Your task to perform on an android device: Open battery settings Image 0: 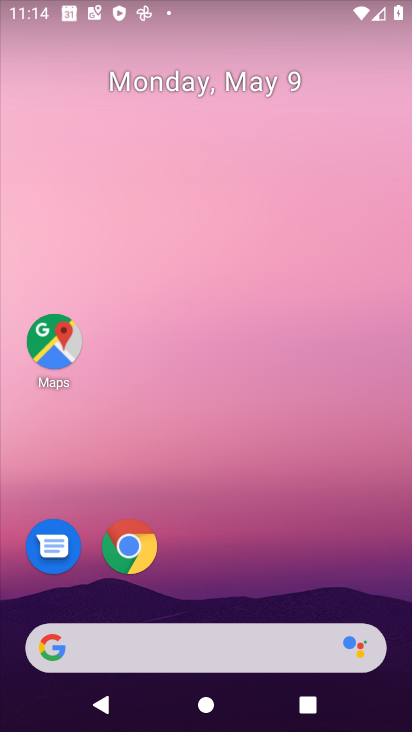
Step 0: drag from (248, 716) to (228, 3)
Your task to perform on an android device: Open battery settings Image 1: 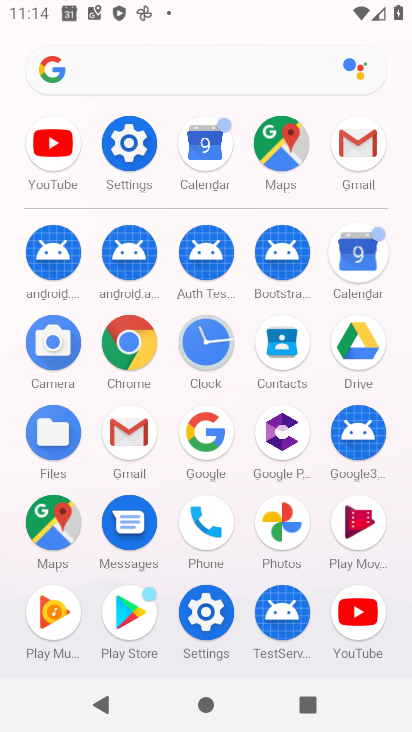
Step 1: click (131, 152)
Your task to perform on an android device: Open battery settings Image 2: 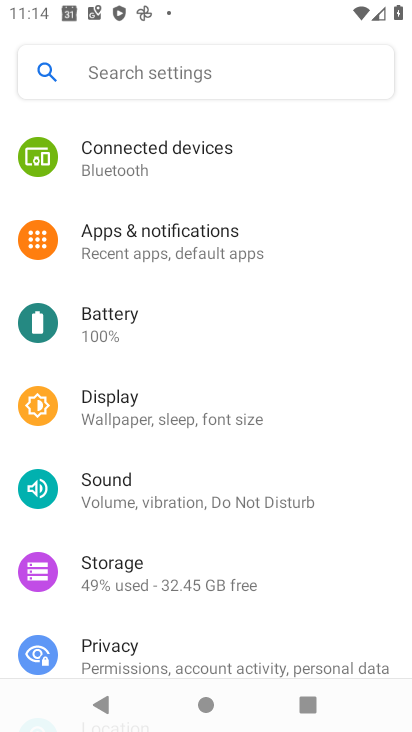
Step 2: click (137, 327)
Your task to perform on an android device: Open battery settings Image 3: 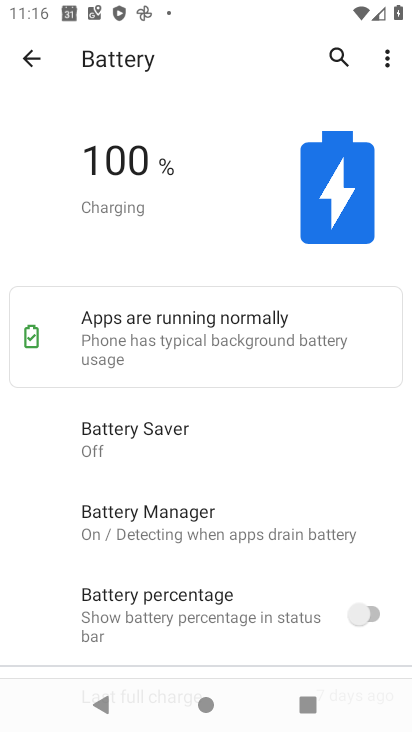
Step 3: task complete